Your task to perform on an android device: Show me popular games on the Play Store Image 0: 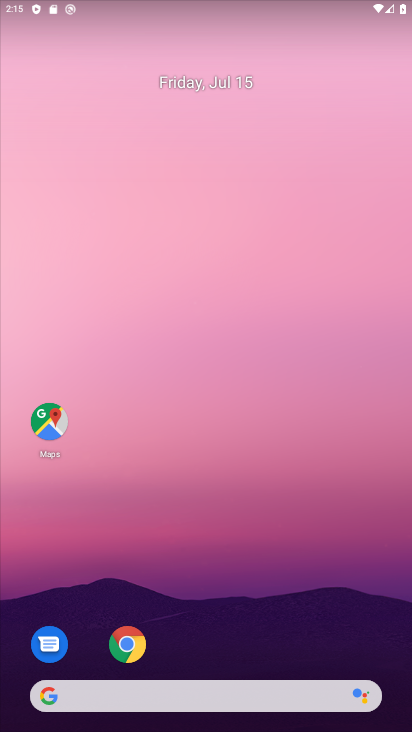
Step 0: drag from (183, 635) to (241, 24)
Your task to perform on an android device: Show me popular games on the Play Store Image 1: 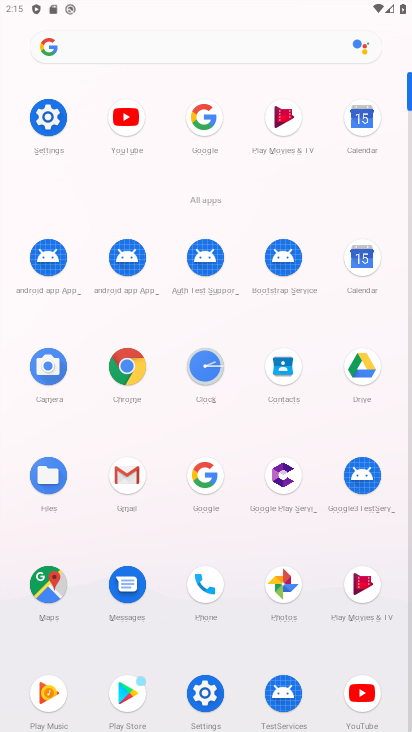
Step 1: click (125, 701)
Your task to perform on an android device: Show me popular games on the Play Store Image 2: 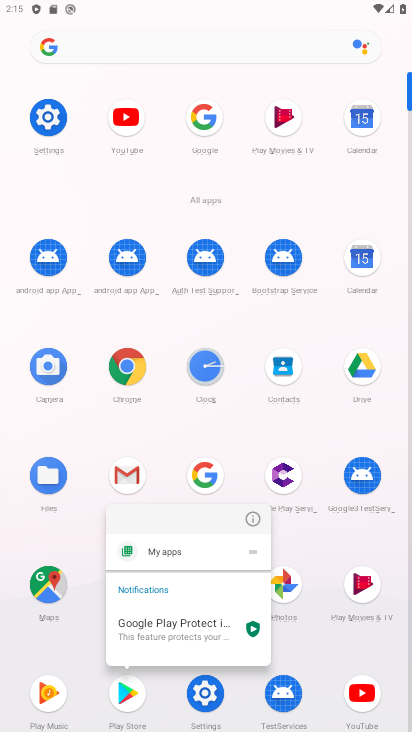
Step 2: click (120, 688)
Your task to perform on an android device: Show me popular games on the Play Store Image 3: 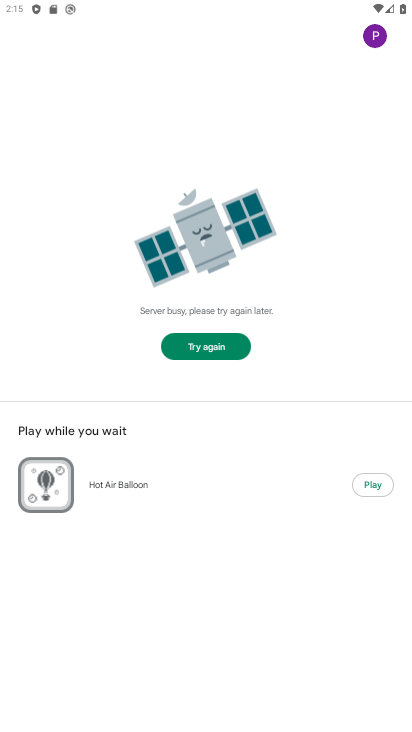
Step 3: task complete